Your task to perform on an android device: Go to Google maps Image 0: 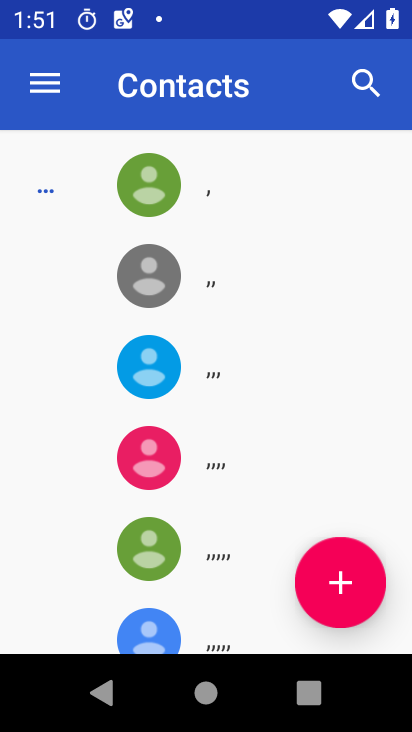
Step 0: press home button
Your task to perform on an android device: Go to Google maps Image 1: 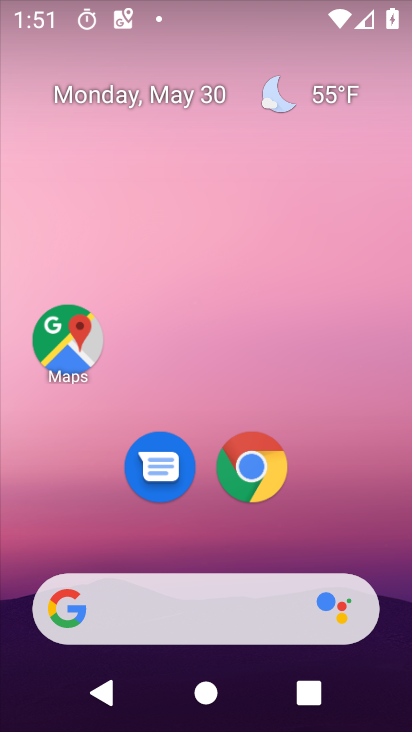
Step 1: click (76, 329)
Your task to perform on an android device: Go to Google maps Image 2: 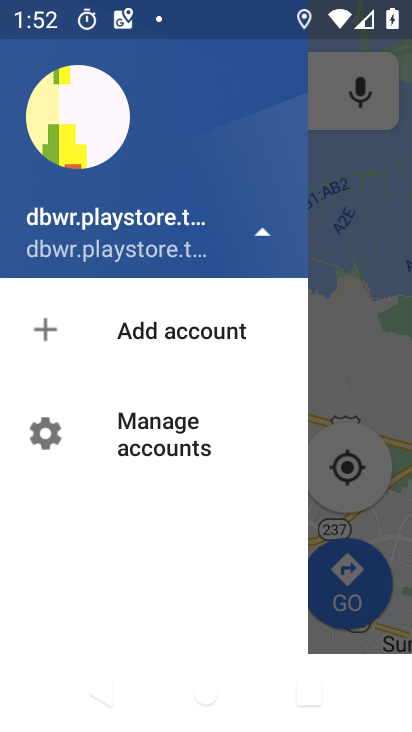
Step 2: task complete